Your task to perform on an android device: turn off translation in the chrome app Image 0: 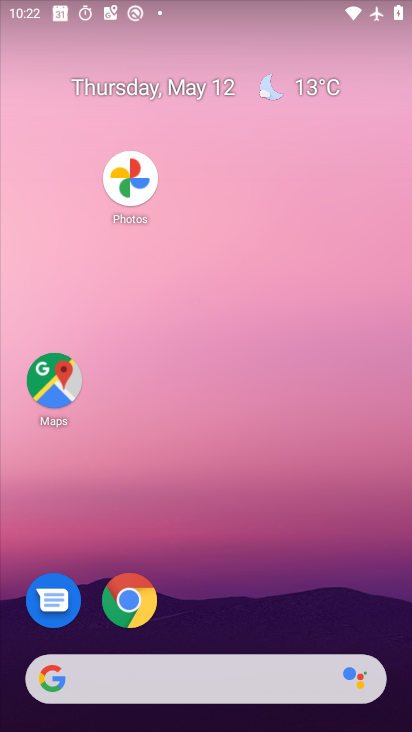
Step 0: click (376, 260)
Your task to perform on an android device: turn off translation in the chrome app Image 1: 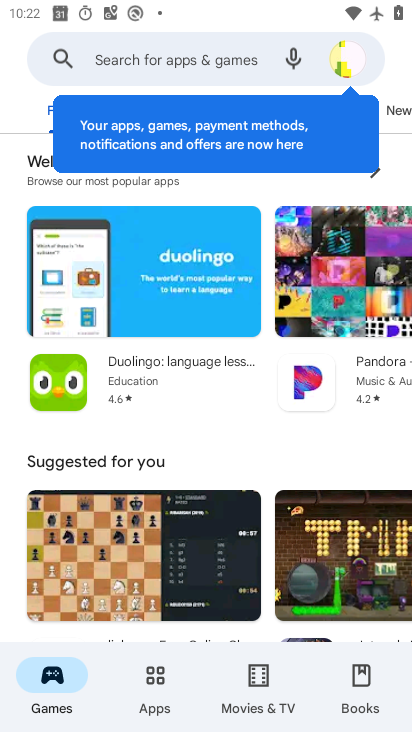
Step 1: press back button
Your task to perform on an android device: turn off translation in the chrome app Image 2: 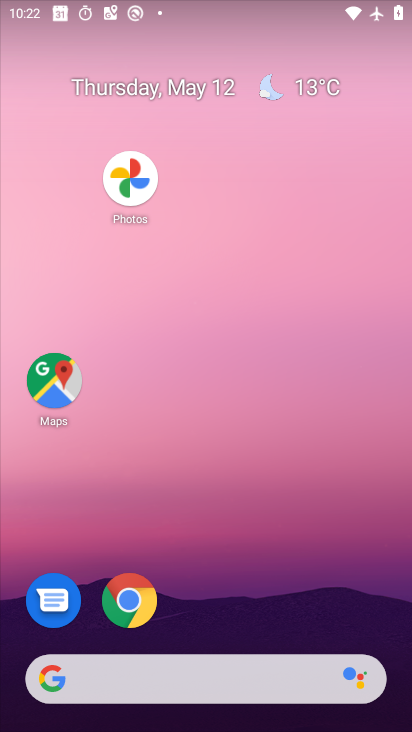
Step 2: drag from (283, 614) to (76, 5)
Your task to perform on an android device: turn off translation in the chrome app Image 3: 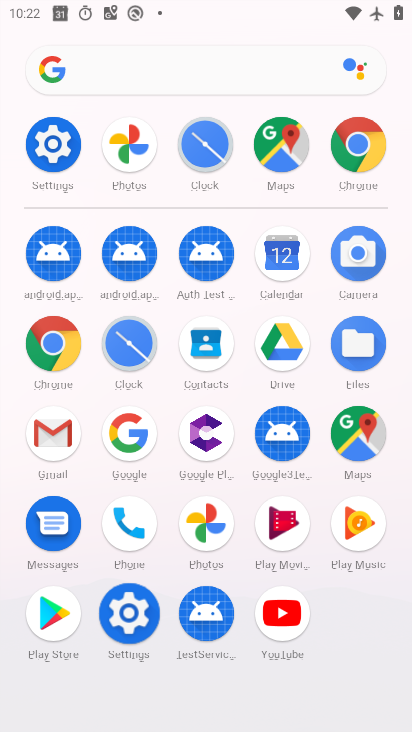
Step 3: click (33, 346)
Your task to perform on an android device: turn off translation in the chrome app Image 4: 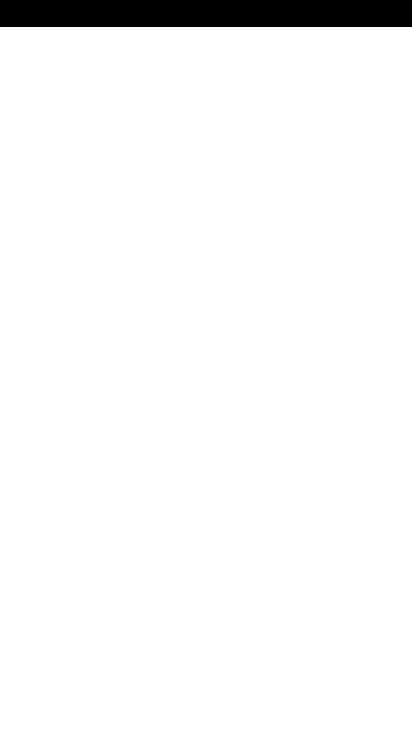
Step 4: click (49, 345)
Your task to perform on an android device: turn off translation in the chrome app Image 5: 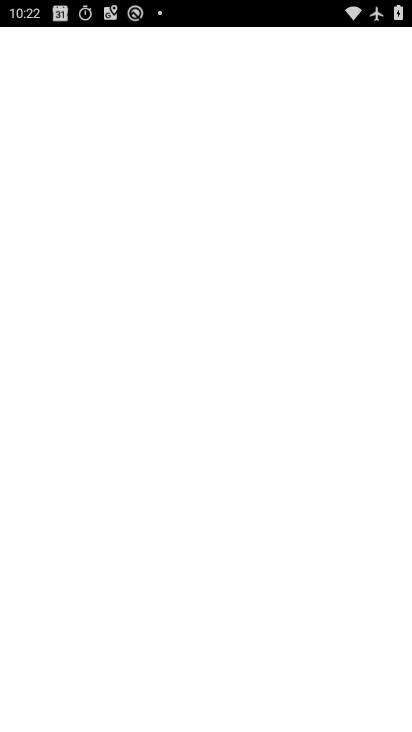
Step 5: click (49, 345)
Your task to perform on an android device: turn off translation in the chrome app Image 6: 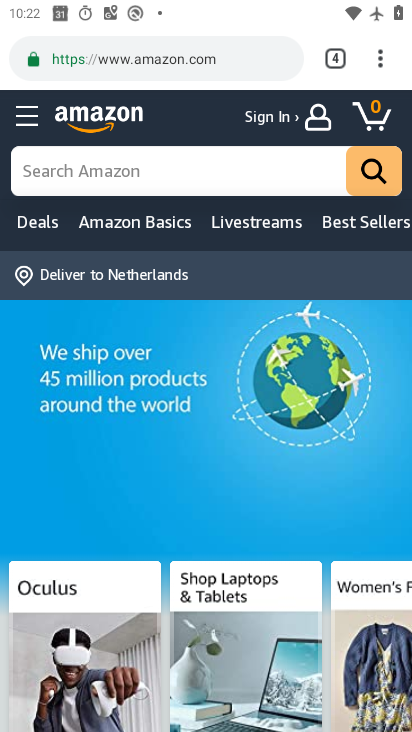
Step 6: click (377, 67)
Your task to perform on an android device: turn off translation in the chrome app Image 7: 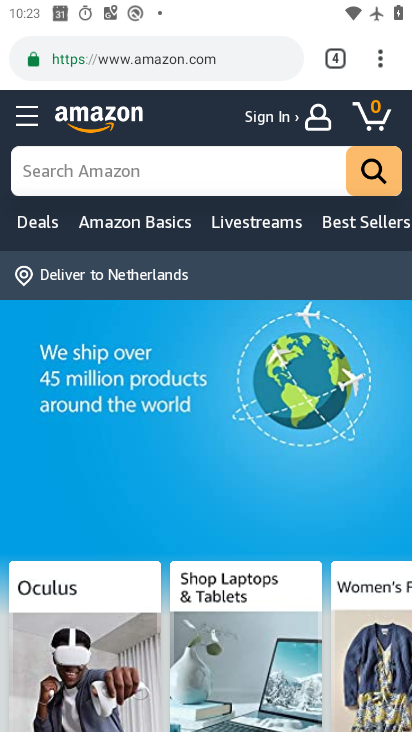
Step 7: drag from (380, 57) to (163, 616)
Your task to perform on an android device: turn off translation in the chrome app Image 8: 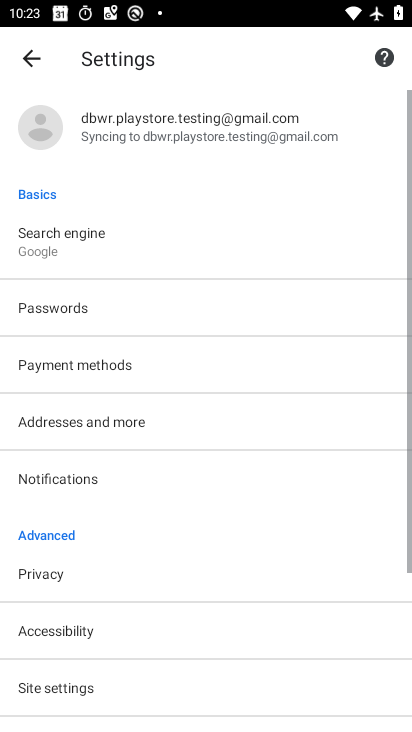
Step 8: click (158, 619)
Your task to perform on an android device: turn off translation in the chrome app Image 9: 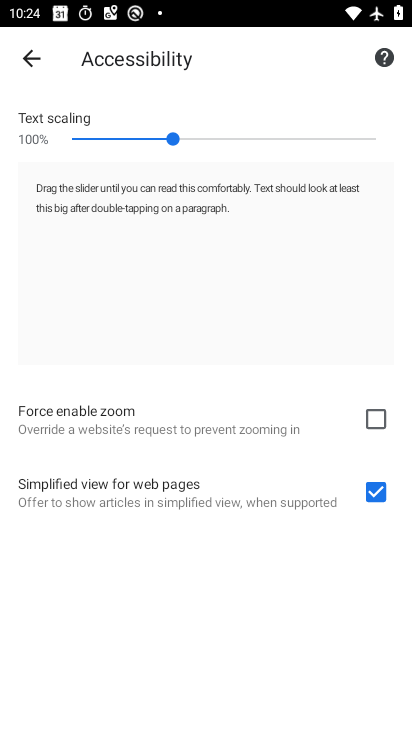
Step 9: click (26, 64)
Your task to perform on an android device: turn off translation in the chrome app Image 10: 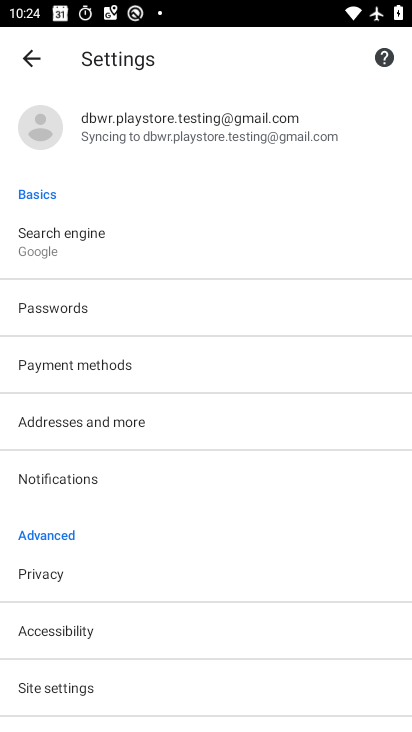
Step 10: drag from (86, 614) to (96, 82)
Your task to perform on an android device: turn off translation in the chrome app Image 11: 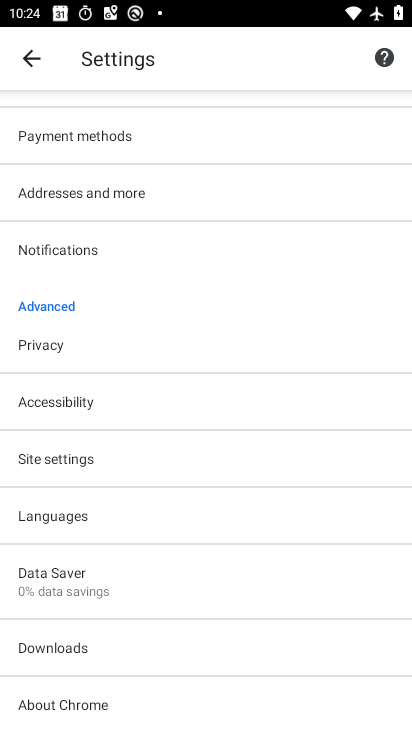
Step 11: drag from (137, 95) to (79, 62)
Your task to perform on an android device: turn off translation in the chrome app Image 12: 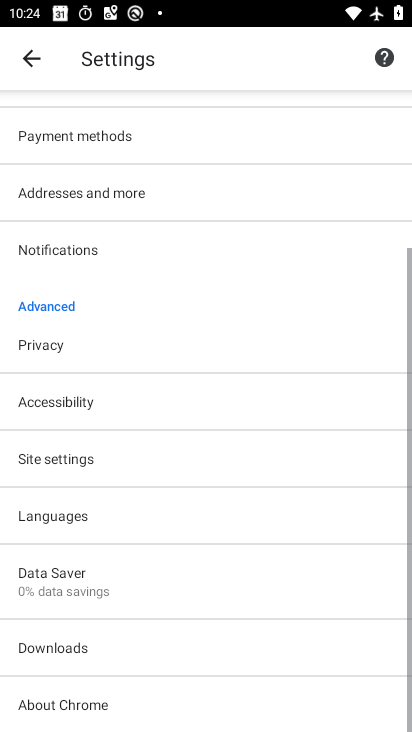
Step 12: drag from (36, 512) to (45, 598)
Your task to perform on an android device: turn off translation in the chrome app Image 13: 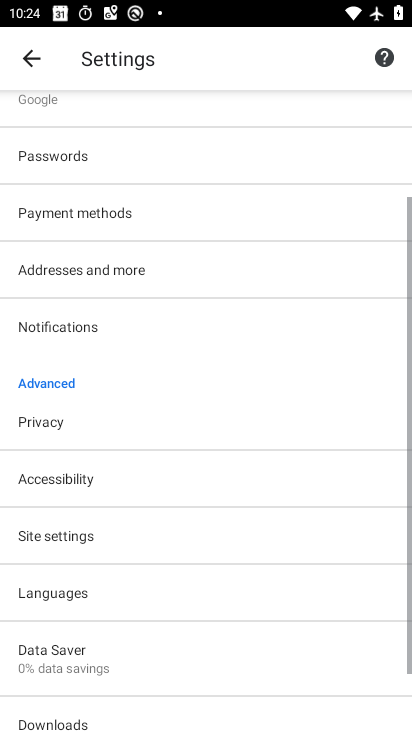
Step 13: click (46, 597)
Your task to perform on an android device: turn off translation in the chrome app Image 14: 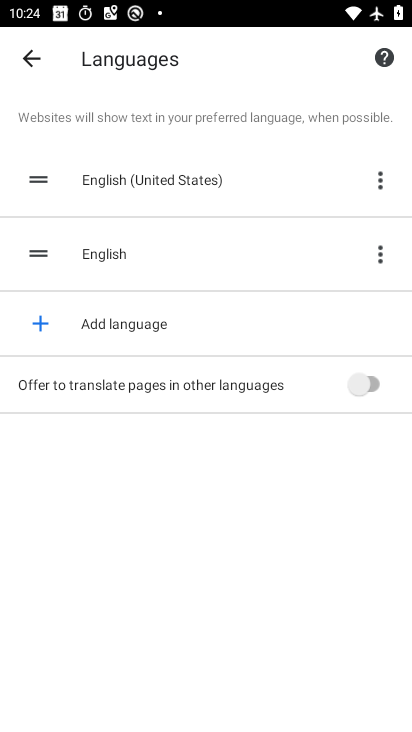
Step 14: click (355, 378)
Your task to perform on an android device: turn off translation in the chrome app Image 15: 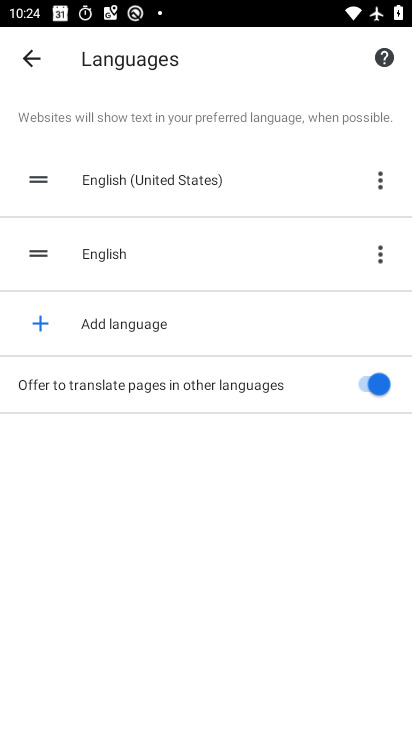
Step 15: click (374, 387)
Your task to perform on an android device: turn off translation in the chrome app Image 16: 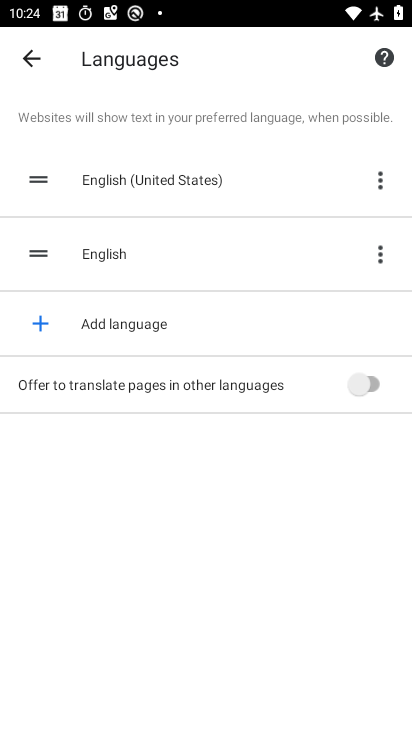
Step 16: task complete